Your task to perform on an android device: Show me recent news Image 0: 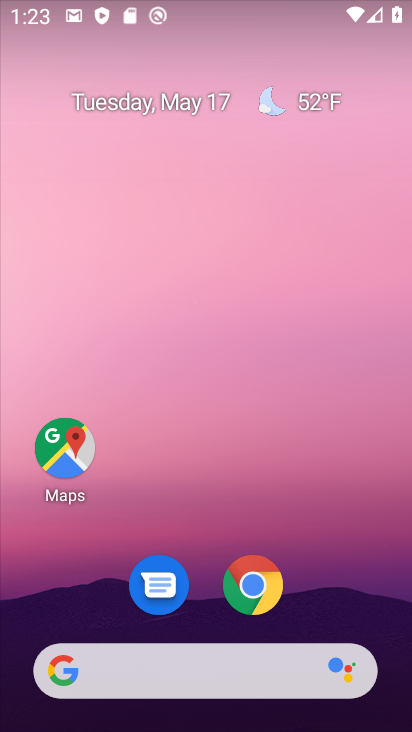
Step 0: click (249, 675)
Your task to perform on an android device: Show me recent news Image 1: 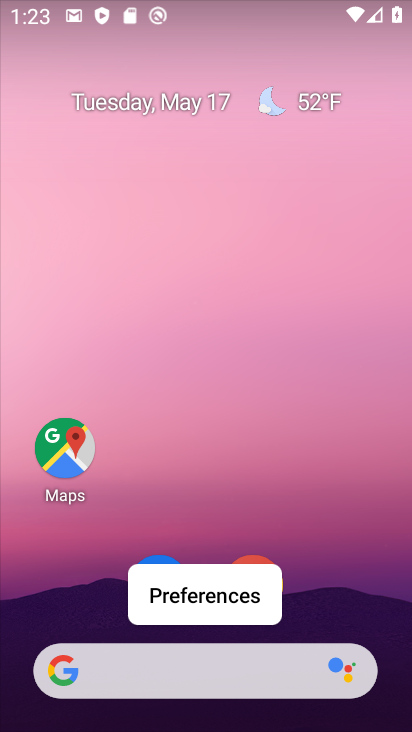
Step 1: click (249, 673)
Your task to perform on an android device: Show me recent news Image 2: 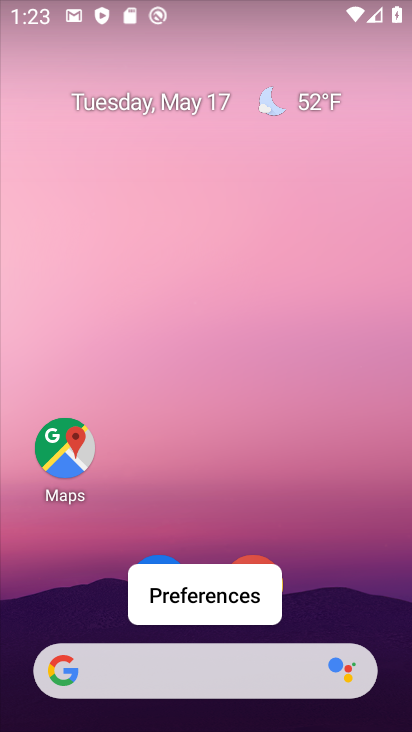
Step 2: click (196, 676)
Your task to perform on an android device: Show me recent news Image 3: 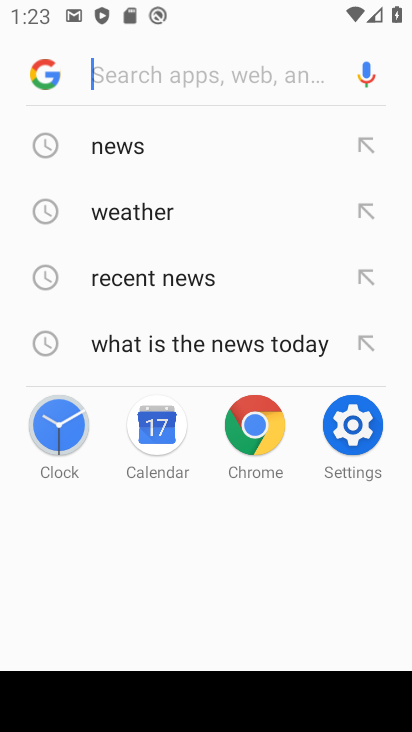
Step 3: click (84, 278)
Your task to perform on an android device: Show me recent news Image 4: 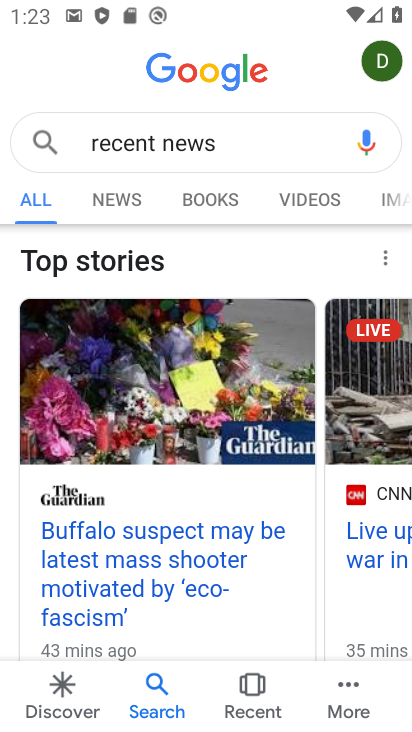
Step 4: task complete